Your task to perform on an android device: clear history in the chrome app Image 0: 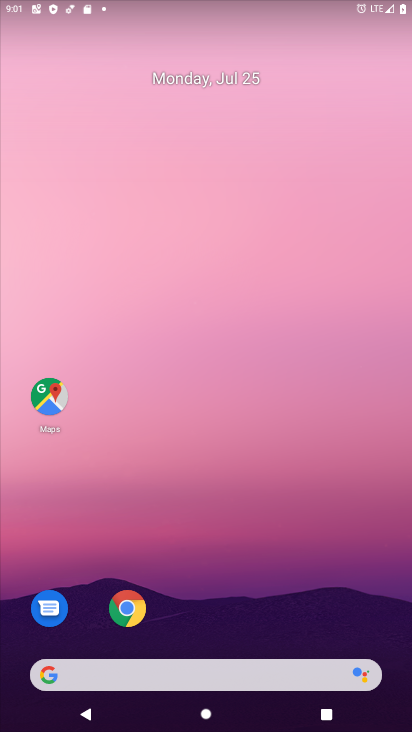
Step 0: click (132, 609)
Your task to perform on an android device: clear history in the chrome app Image 1: 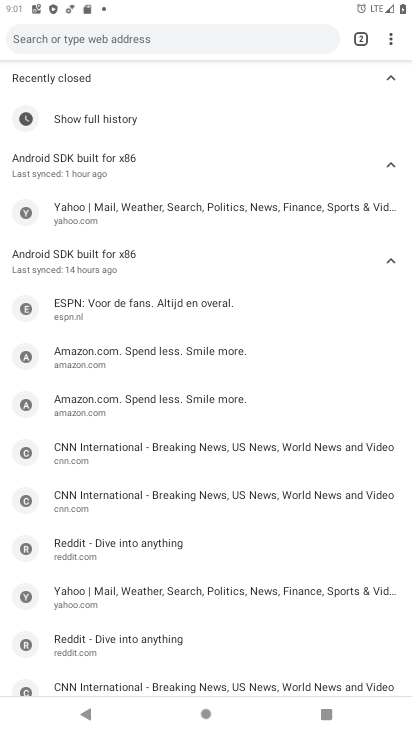
Step 1: click (389, 42)
Your task to perform on an android device: clear history in the chrome app Image 2: 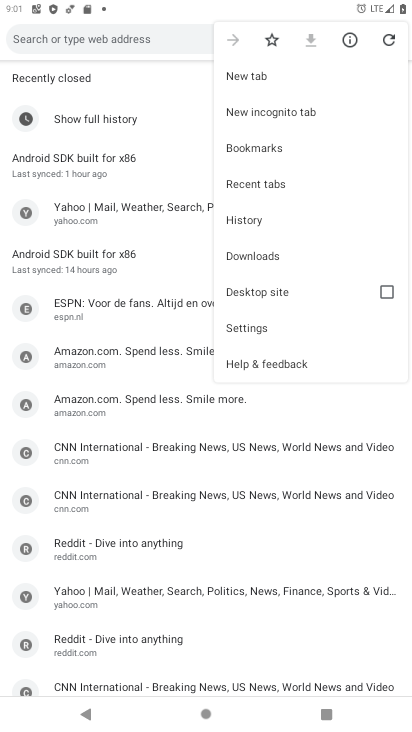
Step 2: click (250, 217)
Your task to perform on an android device: clear history in the chrome app Image 3: 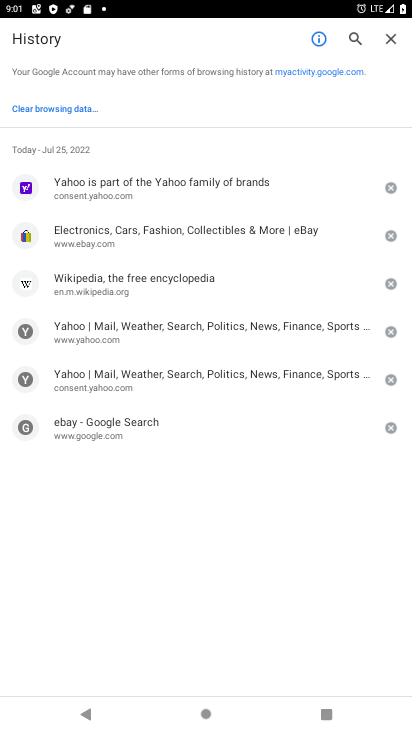
Step 3: click (28, 107)
Your task to perform on an android device: clear history in the chrome app Image 4: 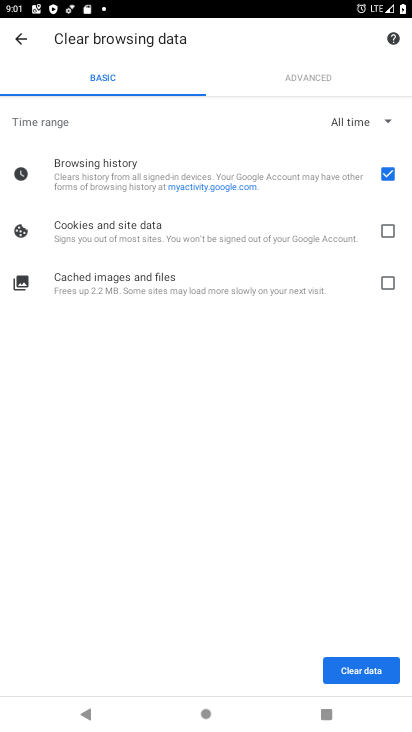
Step 4: click (337, 668)
Your task to perform on an android device: clear history in the chrome app Image 5: 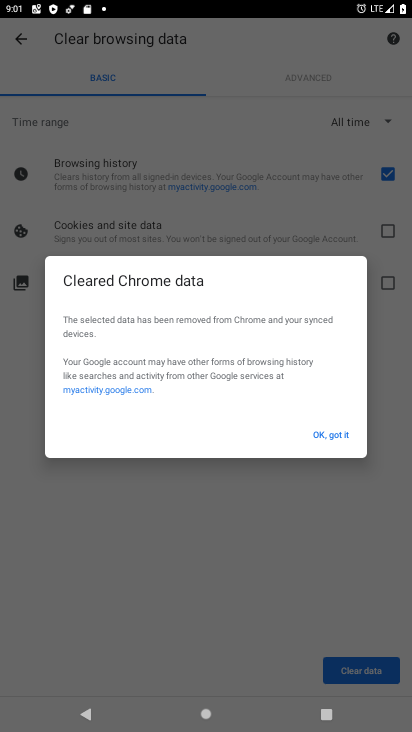
Step 5: click (330, 433)
Your task to perform on an android device: clear history in the chrome app Image 6: 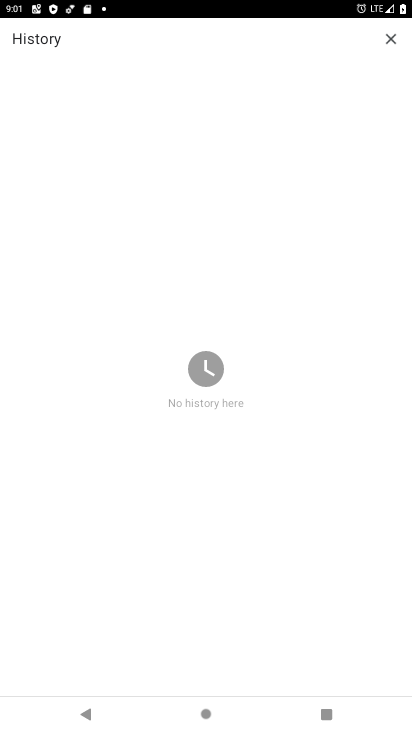
Step 6: task complete